Your task to perform on an android device: set the stopwatch Image 0: 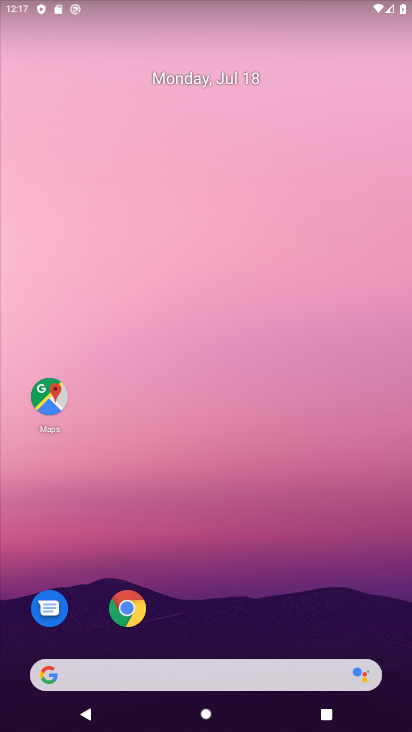
Step 0: drag from (323, 588) to (398, 107)
Your task to perform on an android device: set the stopwatch Image 1: 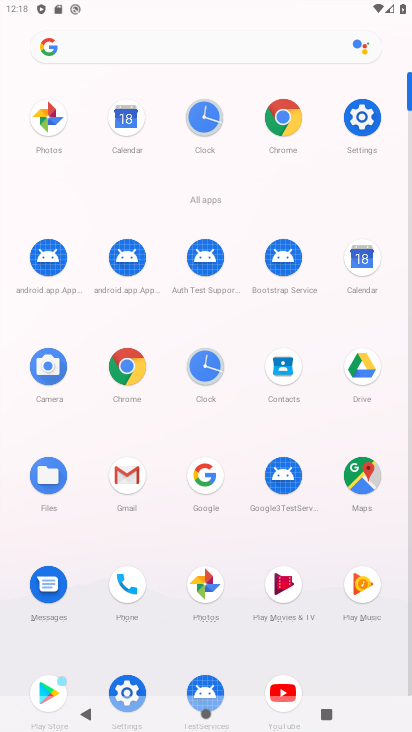
Step 1: click (196, 377)
Your task to perform on an android device: set the stopwatch Image 2: 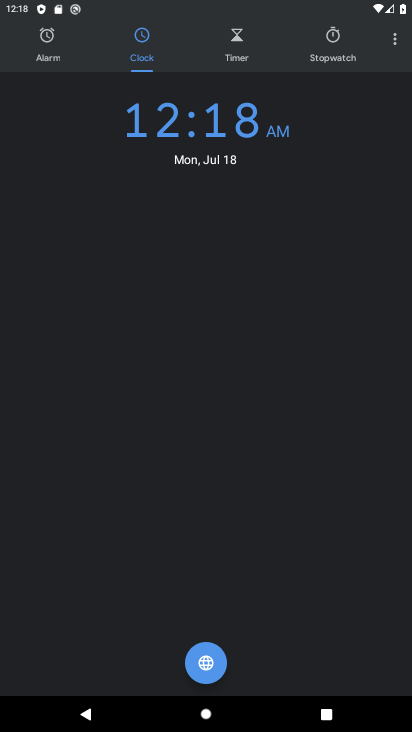
Step 2: click (341, 45)
Your task to perform on an android device: set the stopwatch Image 3: 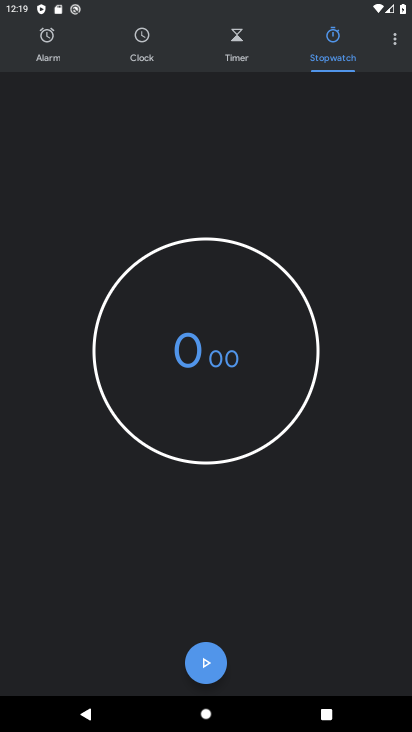
Step 3: click (202, 670)
Your task to perform on an android device: set the stopwatch Image 4: 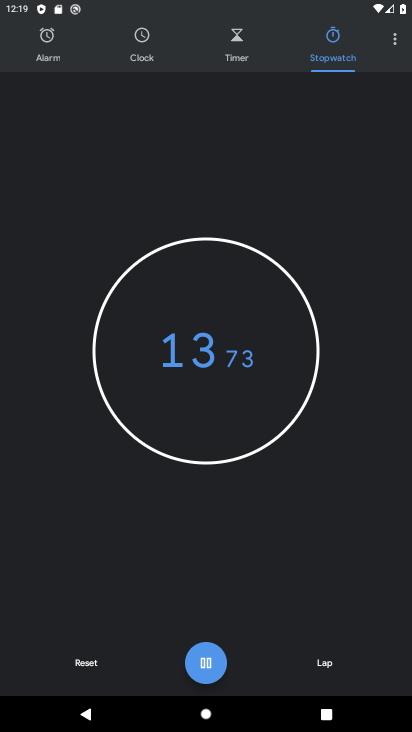
Step 4: task complete